Your task to perform on an android device: Search for Italian restaurants on Maps Image 0: 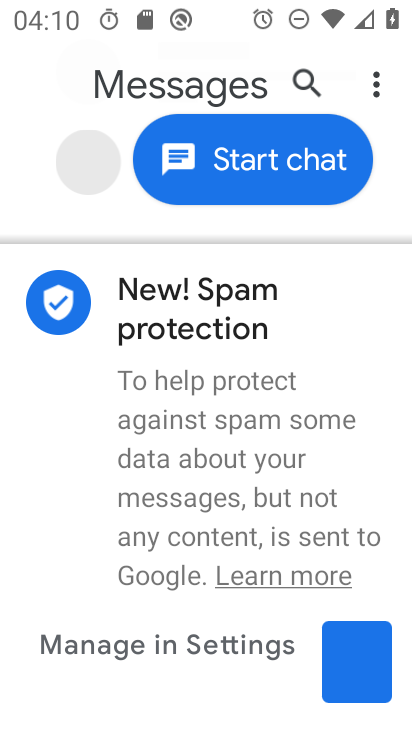
Step 0: press home button
Your task to perform on an android device: Search for Italian restaurants on Maps Image 1: 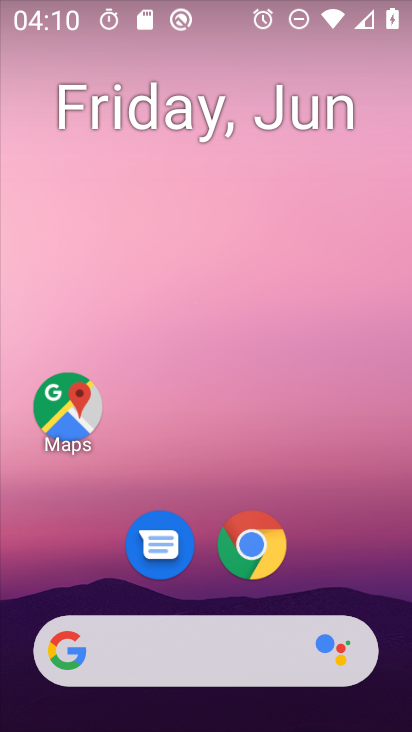
Step 1: click (71, 406)
Your task to perform on an android device: Search for Italian restaurants on Maps Image 2: 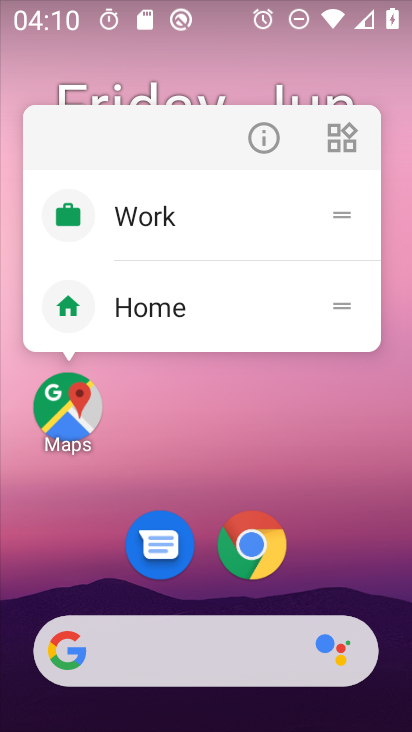
Step 2: click (26, 407)
Your task to perform on an android device: Search for Italian restaurants on Maps Image 3: 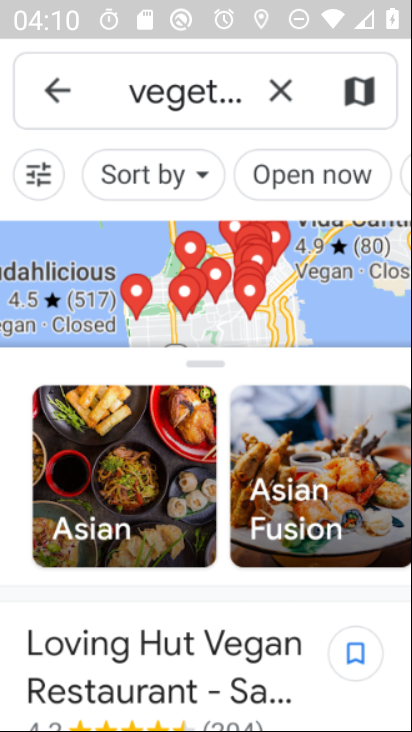
Step 3: click (264, 84)
Your task to perform on an android device: Search for Italian restaurants on Maps Image 4: 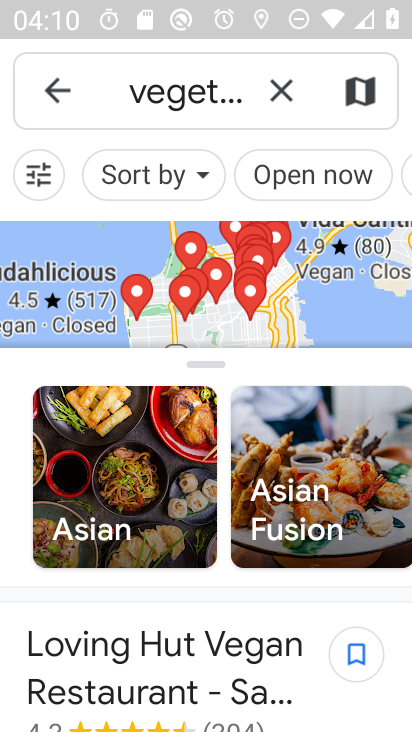
Step 4: click (283, 97)
Your task to perform on an android device: Search for Italian restaurants on Maps Image 5: 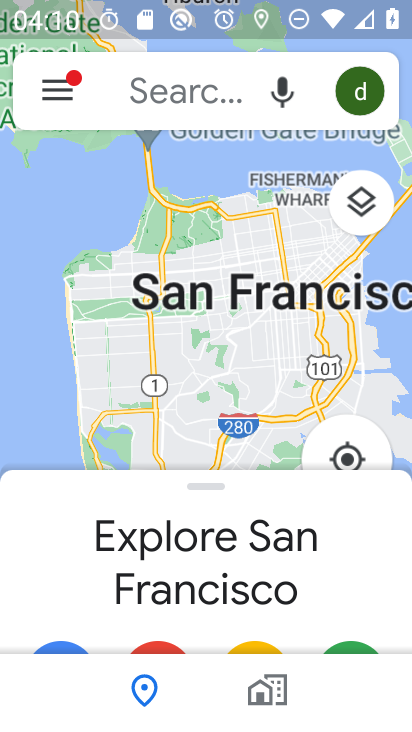
Step 5: click (175, 108)
Your task to perform on an android device: Search for Italian restaurants on Maps Image 6: 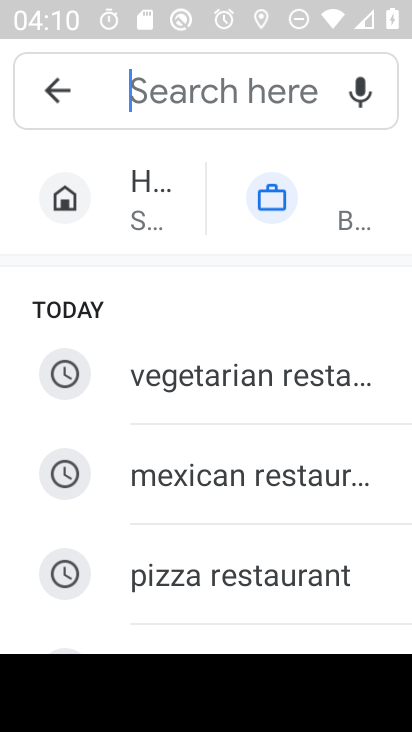
Step 6: type "italian restaurants"
Your task to perform on an android device: Search for Italian restaurants on Maps Image 7: 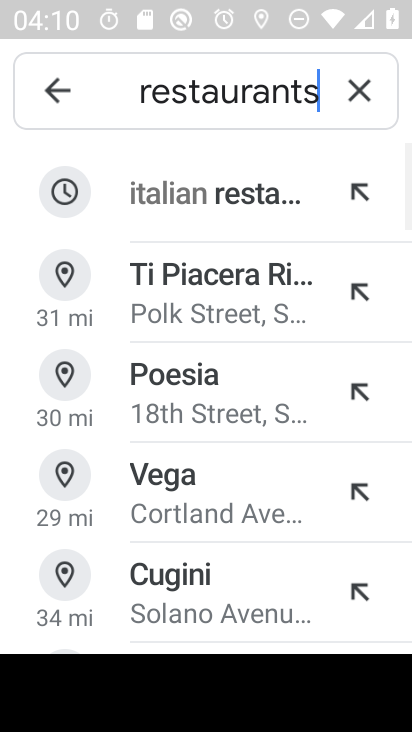
Step 7: click (229, 218)
Your task to perform on an android device: Search for Italian restaurants on Maps Image 8: 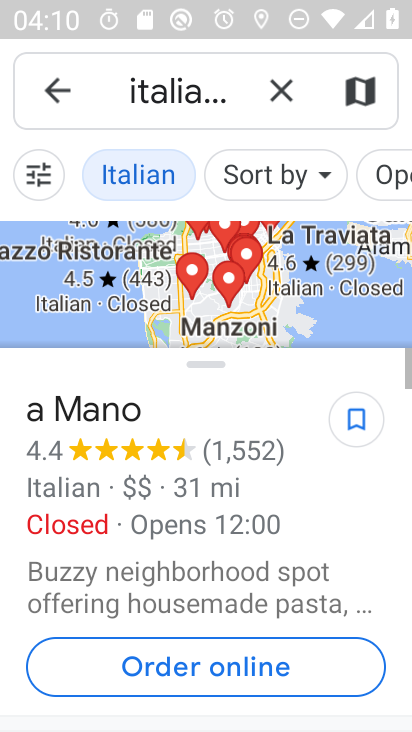
Step 8: task complete